Your task to perform on an android device: open app "Google Home" (install if not already installed) Image 0: 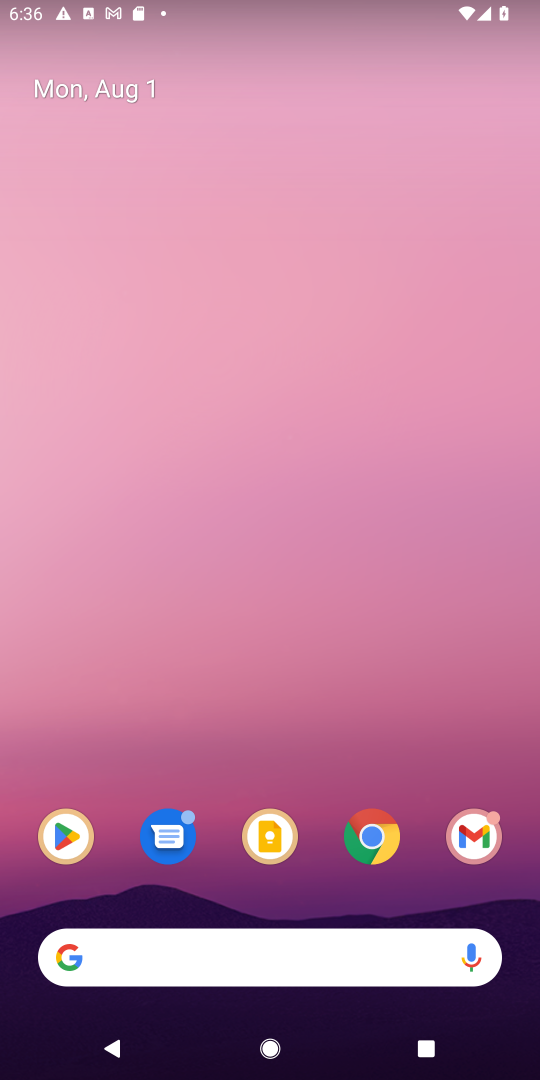
Step 0: press home button
Your task to perform on an android device: open app "Google Home" (install if not already installed) Image 1: 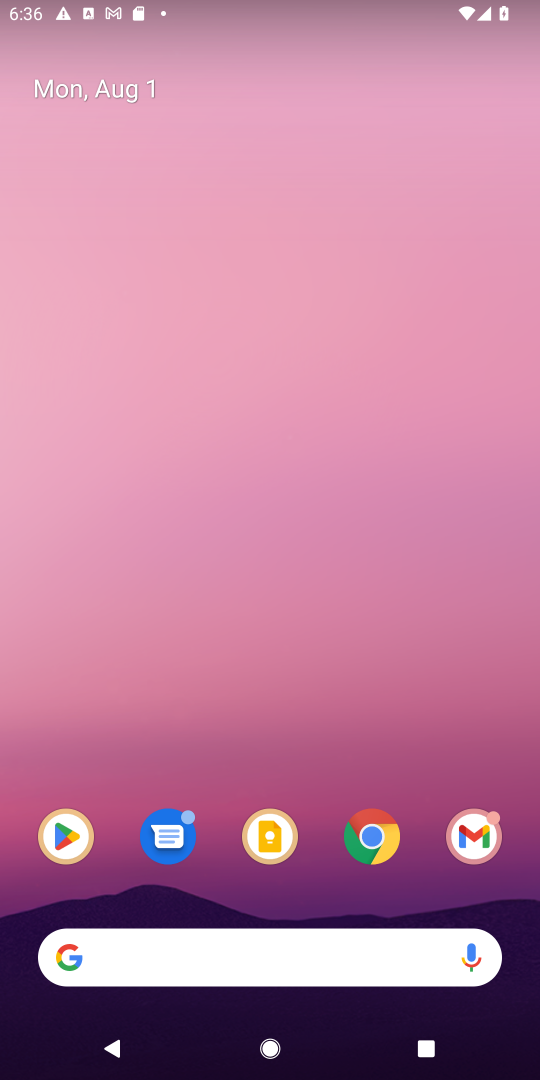
Step 1: click (65, 831)
Your task to perform on an android device: open app "Google Home" (install if not already installed) Image 2: 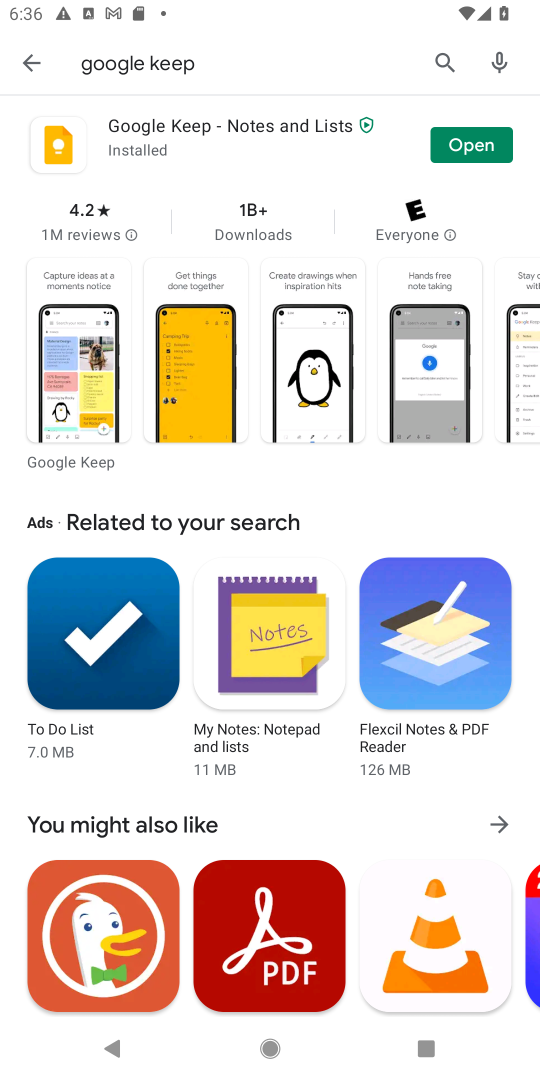
Step 2: click (442, 62)
Your task to perform on an android device: open app "Google Home" (install if not already installed) Image 3: 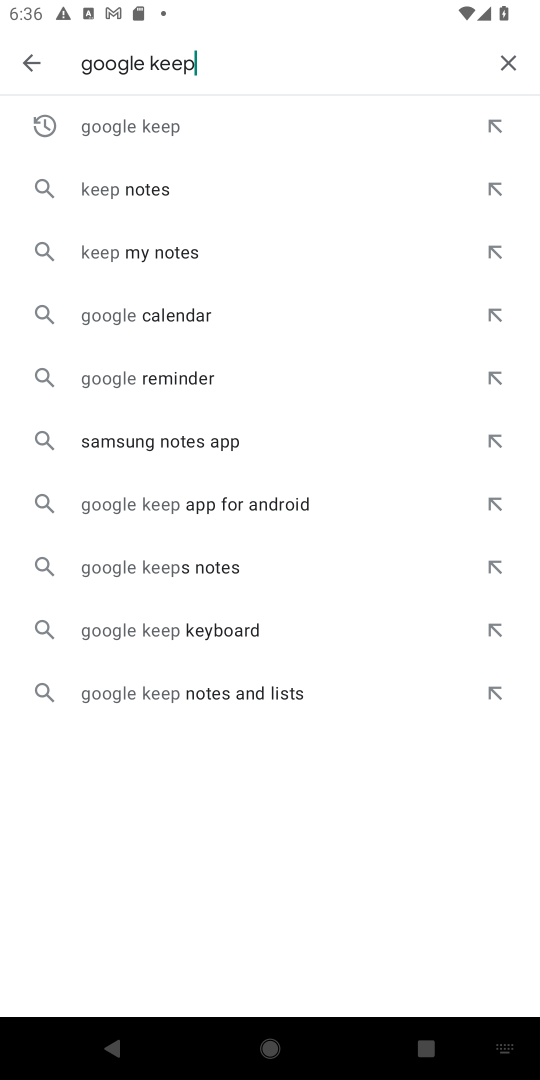
Step 3: click (513, 57)
Your task to perform on an android device: open app "Google Home" (install if not already installed) Image 4: 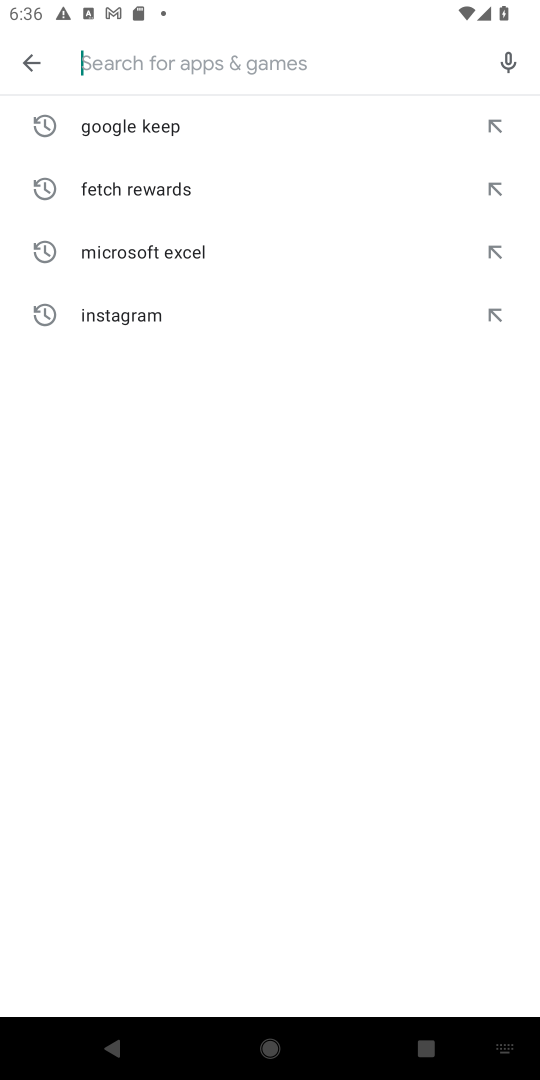
Step 4: type "Google Home"
Your task to perform on an android device: open app "Google Home" (install if not already installed) Image 5: 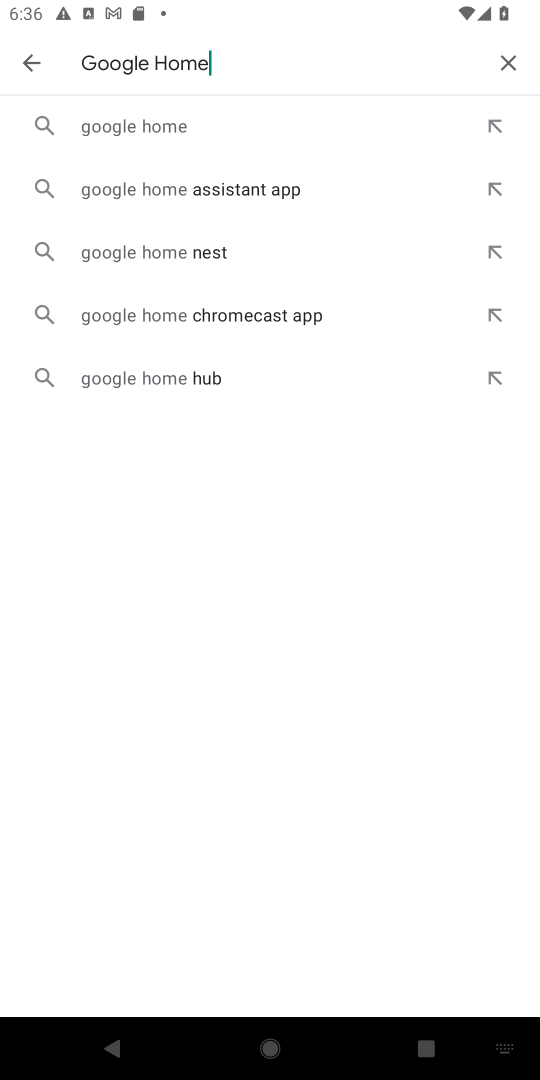
Step 5: click (171, 132)
Your task to perform on an android device: open app "Google Home" (install if not already installed) Image 6: 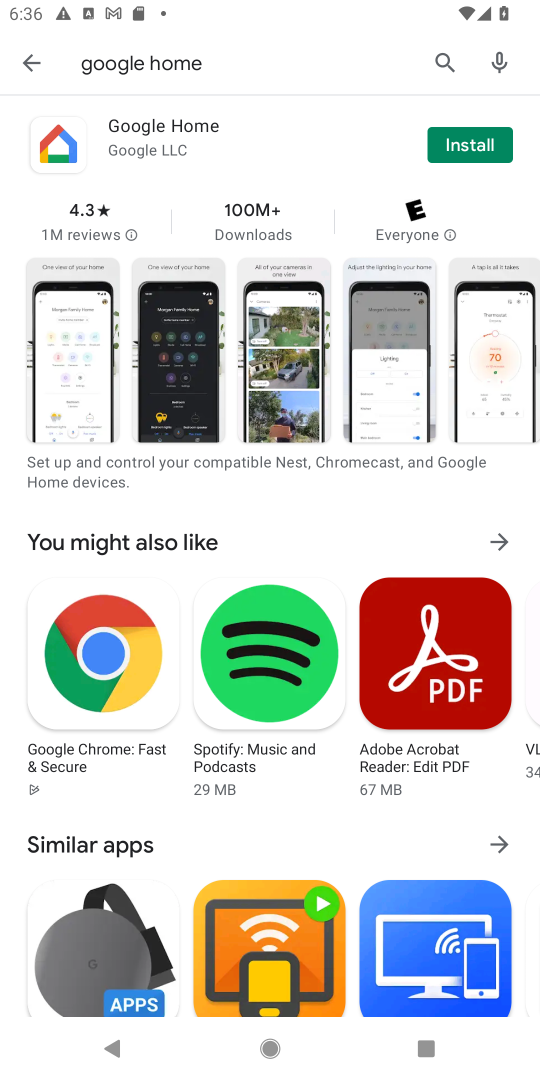
Step 6: click (484, 134)
Your task to perform on an android device: open app "Google Home" (install if not already installed) Image 7: 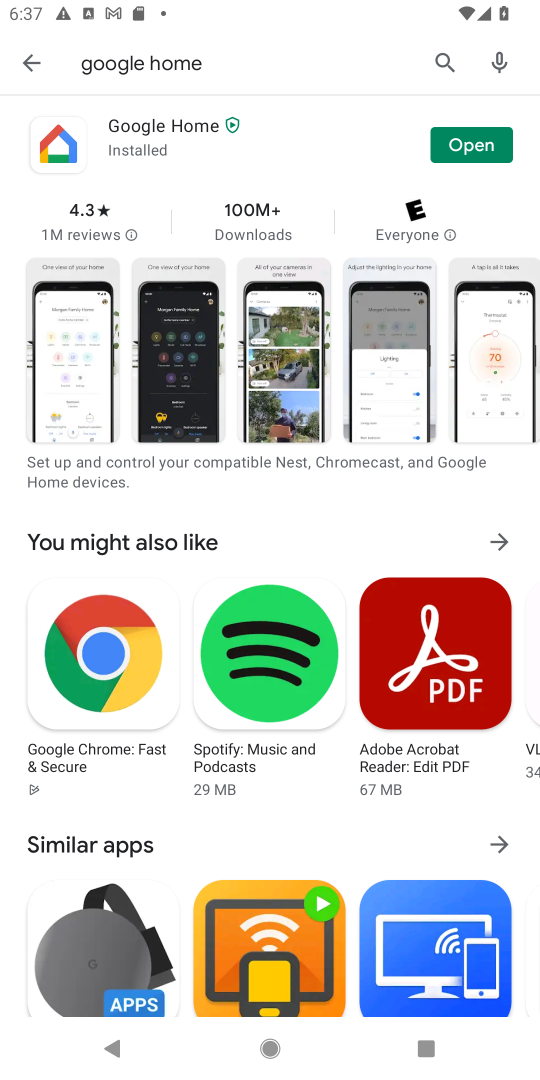
Step 7: click (476, 154)
Your task to perform on an android device: open app "Google Home" (install if not already installed) Image 8: 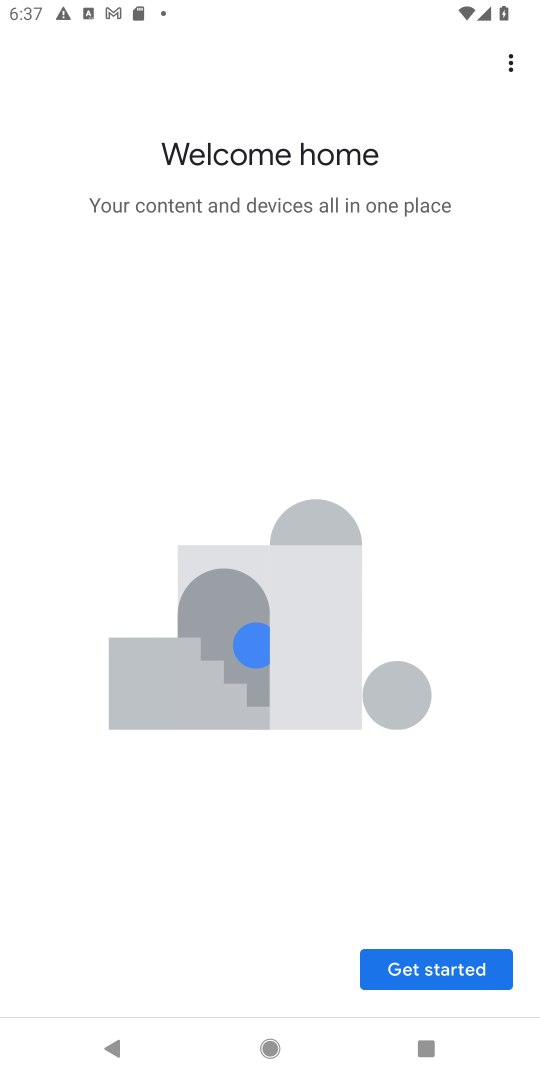
Step 8: task complete